Your task to perform on an android device: turn on priority inbox in the gmail app Image 0: 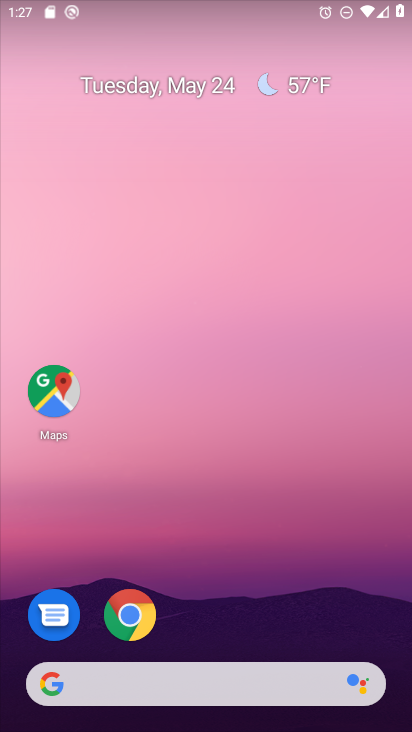
Step 0: drag from (218, 659) to (177, 230)
Your task to perform on an android device: turn on priority inbox in the gmail app Image 1: 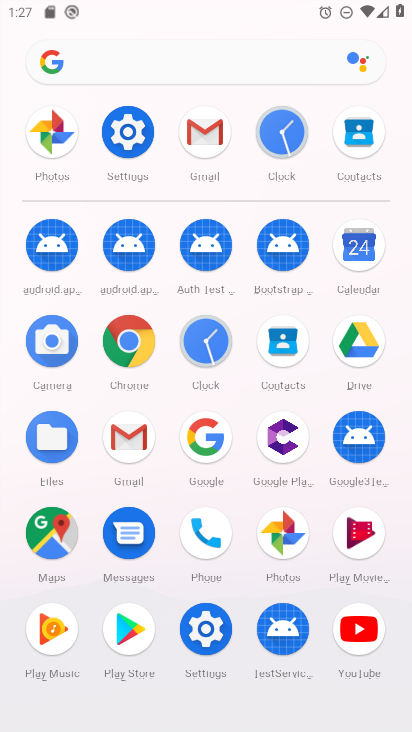
Step 1: click (129, 437)
Your task to perform on an android device: turn on priority inbox in the gmail app Image 2: 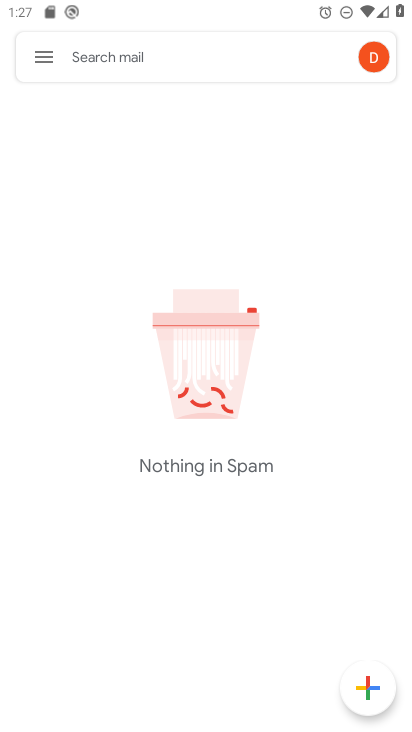
Step 2: press home button
Your task to perform on an android device: turn on priority inbox in the gmail app Image 3: 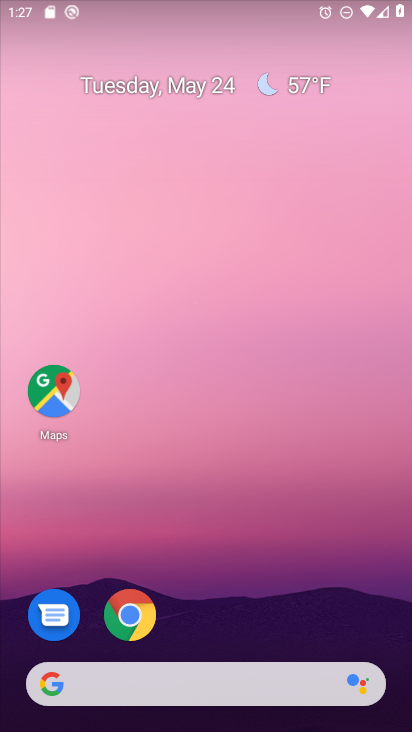
Step 3: drag from (176, 654) to (223, 244)
Your task to perform on an android device: turn on priority inbox in the gmail app Image 4: 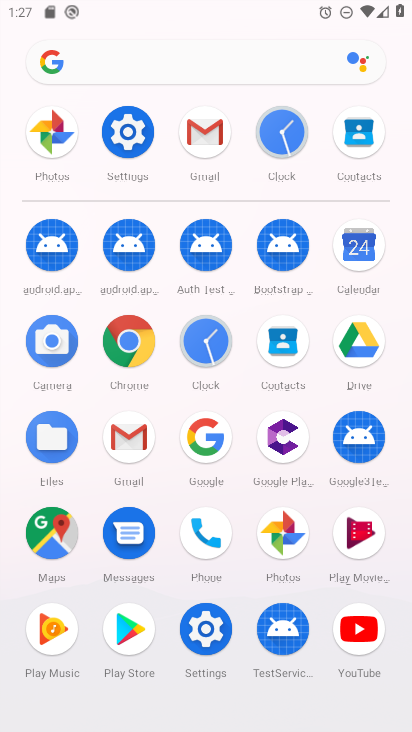
Step 4: click (112, 441)
Your task to perform on an android device: turn on priority inbox in the gmail app Image 5: 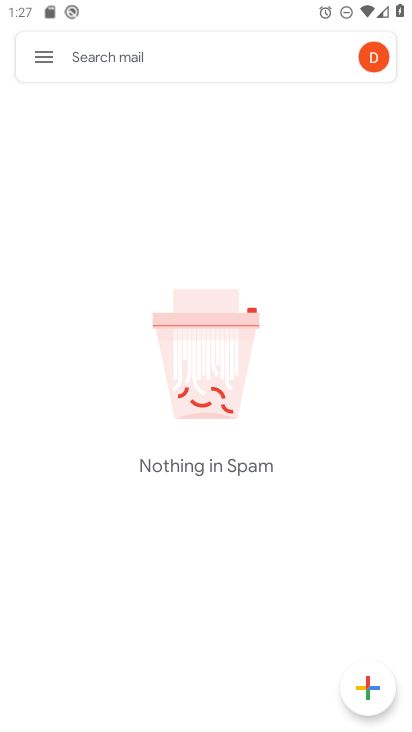
Step 5: click (50, 53)
Your task to perform on an android device: turn on priority inbox in the gmail app Image 6: 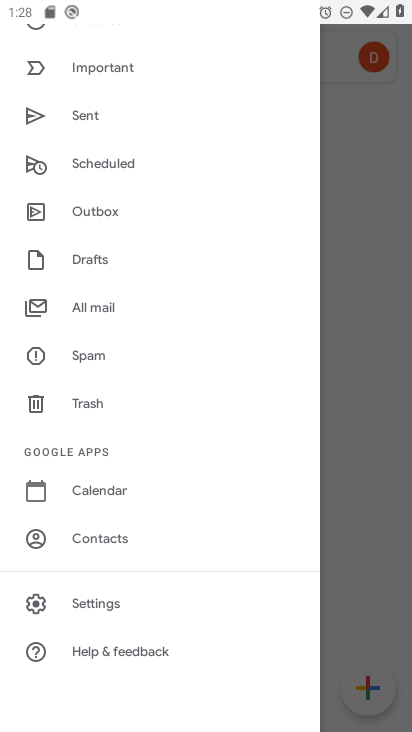
Step 6: click (82, 601)
Your task to perform on an android device: turn on priority inbox in the gmail app Image 7: 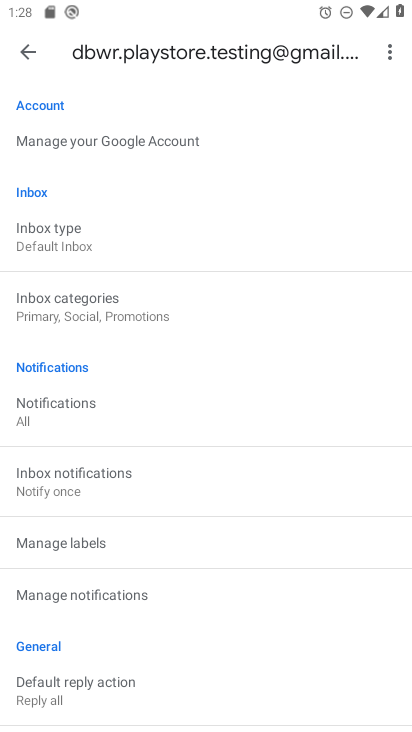
Step 7: click (39, 233)
Your task to perform on an android device: turn on priority inbox in the gmail app Image 8: 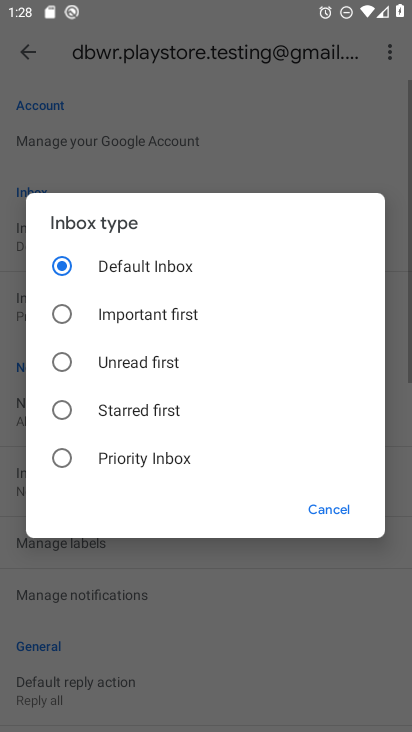
Step 8: click (114, 447)
Your task to perform on an android device: turn on priority inbox in the gmail app Image 9: 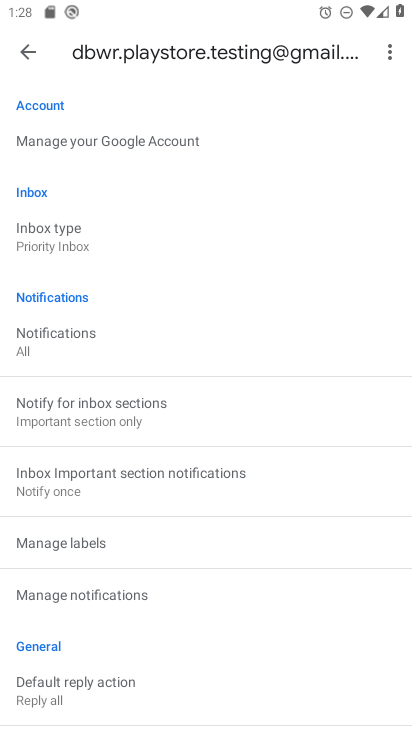
Step 9: task complete